Your task to perform on an android device: Open settings Image 0: 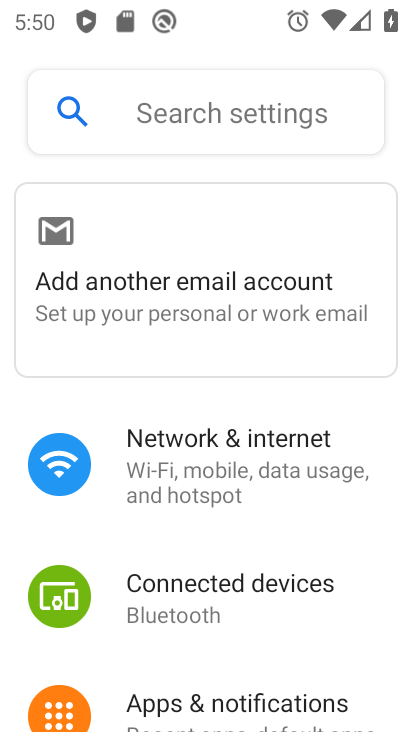
Step 0: press home button
Your task to perform on an android device: Open settings Image 1: 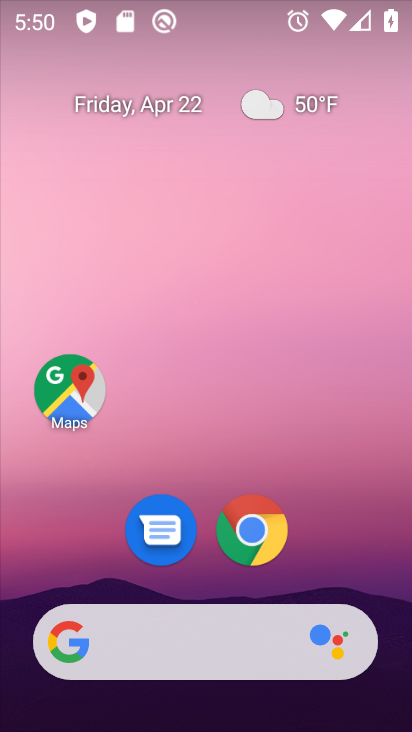
Step 1: drag from (314, 561) to (345, 41)
Your task to perform on an android device: Open settings Image 2: 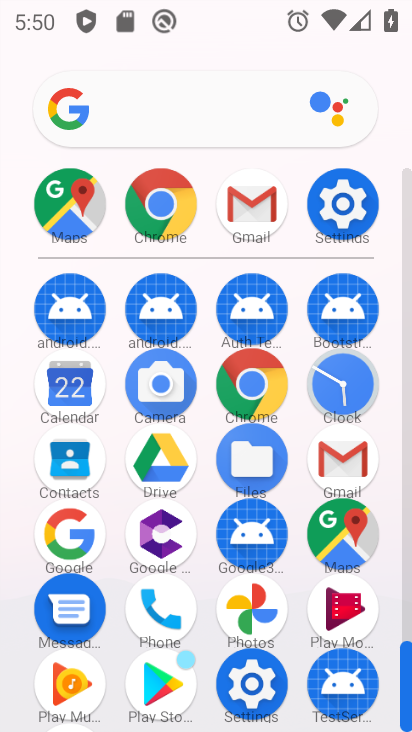
Step 2: click (338, 211)
Your task to perform on an android device: Open settings Image 3: 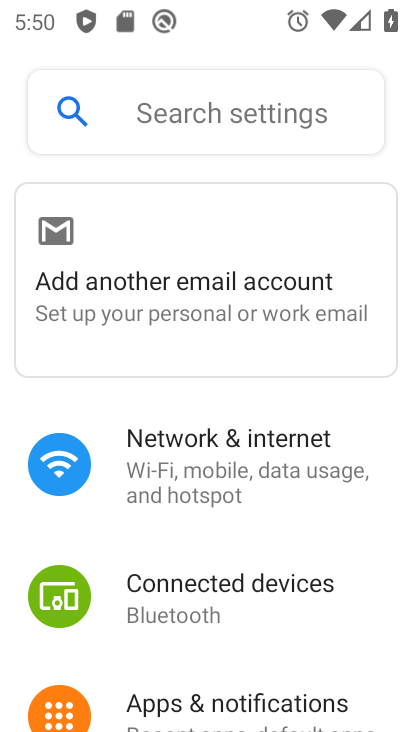
Step 3: task complete